Your task to perform on an android device: Go to location settings Image 0: 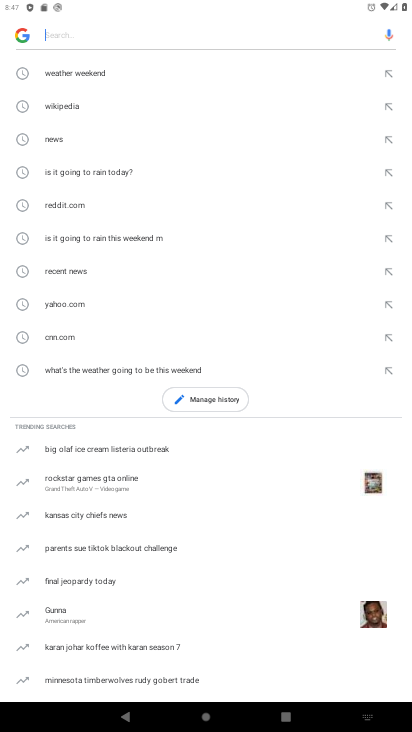
Step 0: press home button
Your task to perform on an android device: Go to location settings Image 1: 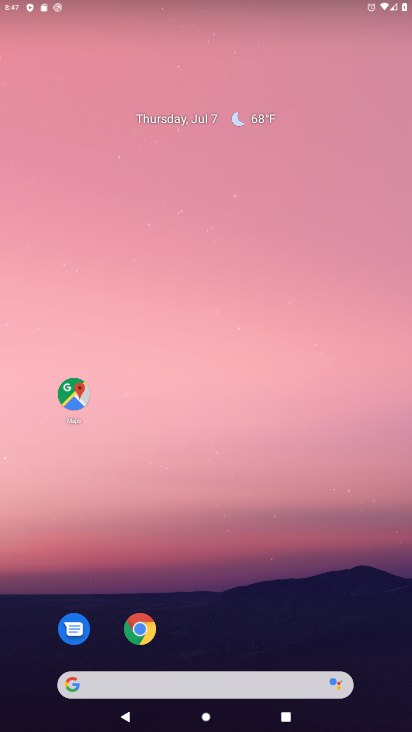
Step 1: drag from (209, 637) to (203, 155)
Your task to perform on an android device: Go to location settings Image 2: 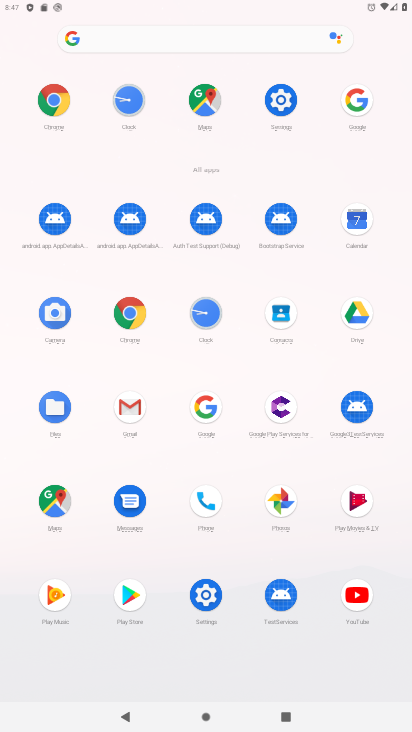
Step 2: click (285, 93)
Your task to perform on an android device: Go to location settings Image 3: 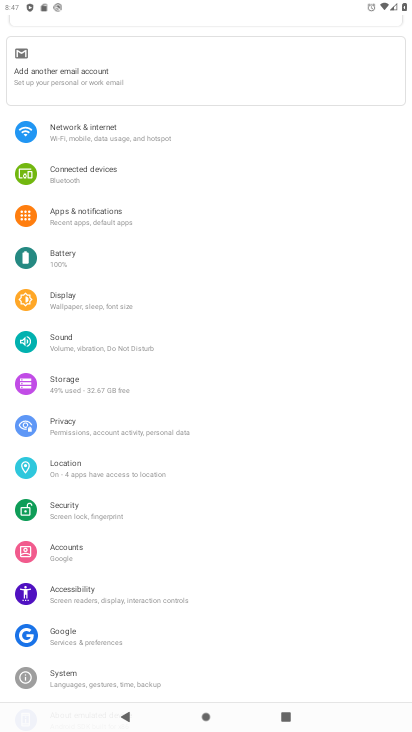
Step 3: click (81, 466)
Your task to perform on an android device: Go to location settings Image 4: 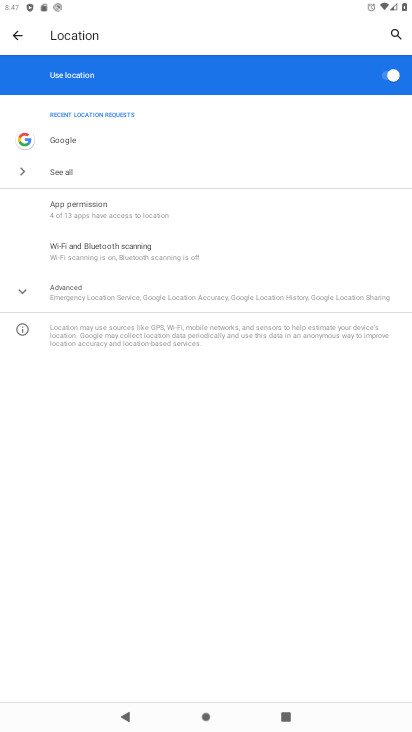
Step 4: task complete